Your task to perform on an android device: install app "Venmo" Image 0: 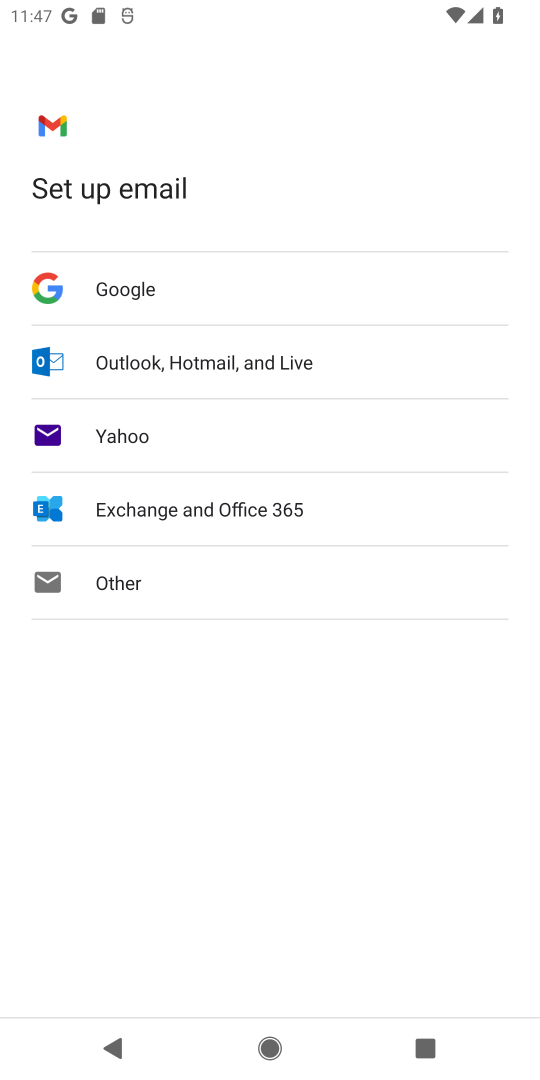
Step 0: press home button
Your task to perform on an android device: install app "Venmo" Image 1: 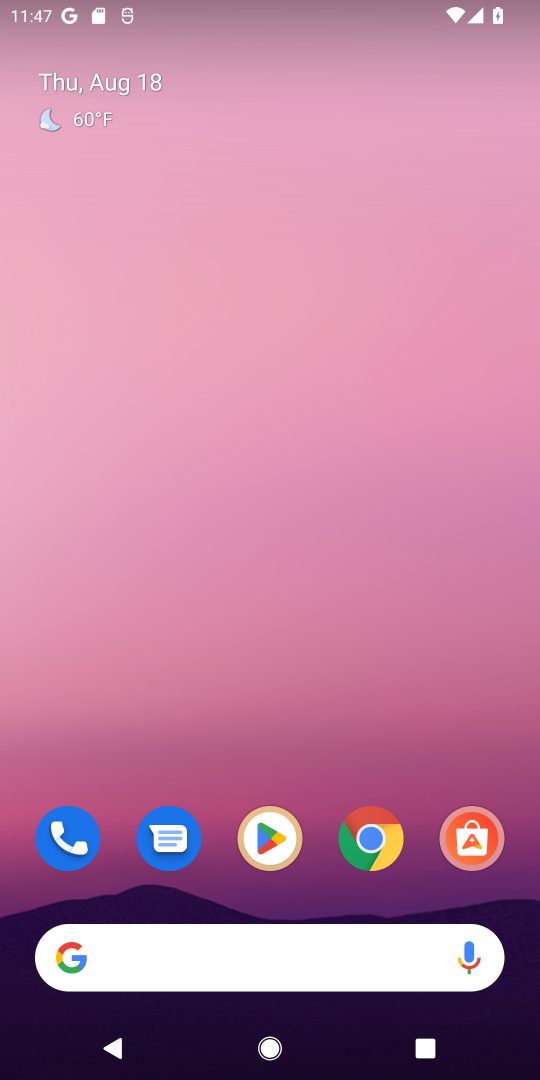
Step 1: click (272, 846)
Your task to perform on an android device: install app "Venmo" Image 2: 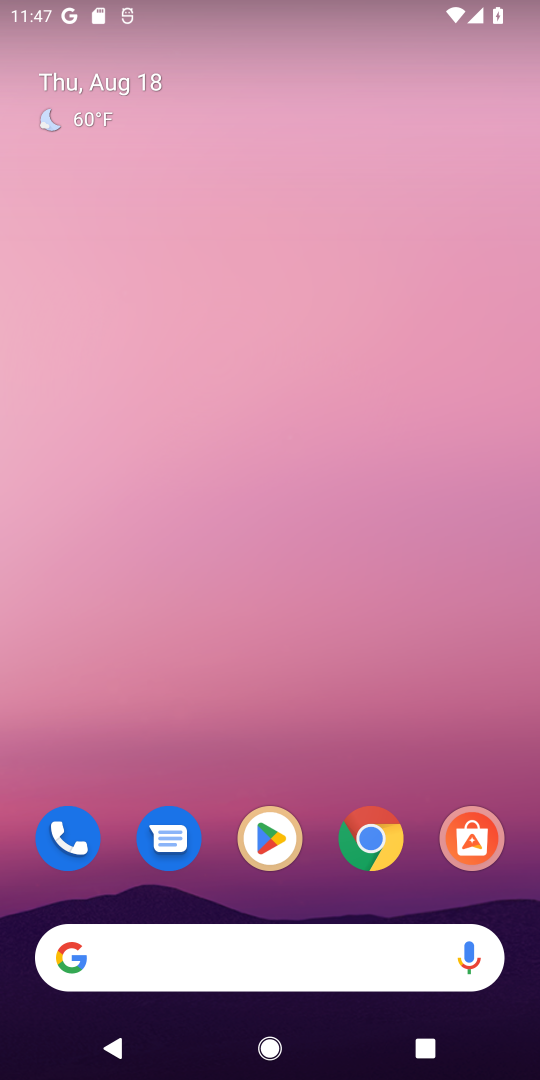
Step 2: click (263, 826)
Your task to perform on an android device: install app "Venmo" Image 3: 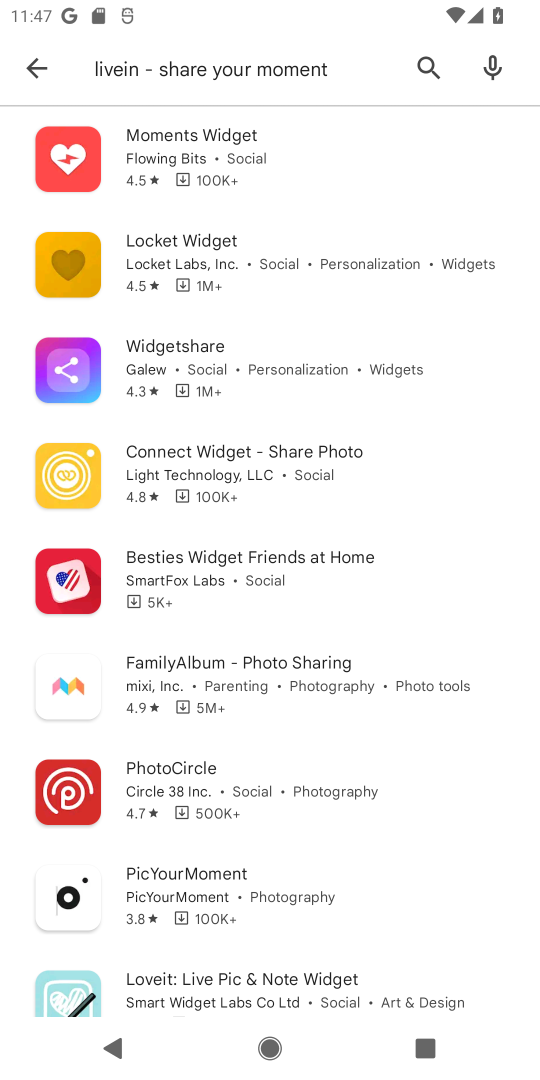
Step 3: click (426, 74)
Your task to perform on an android device: install app "Venmo" Image 4: 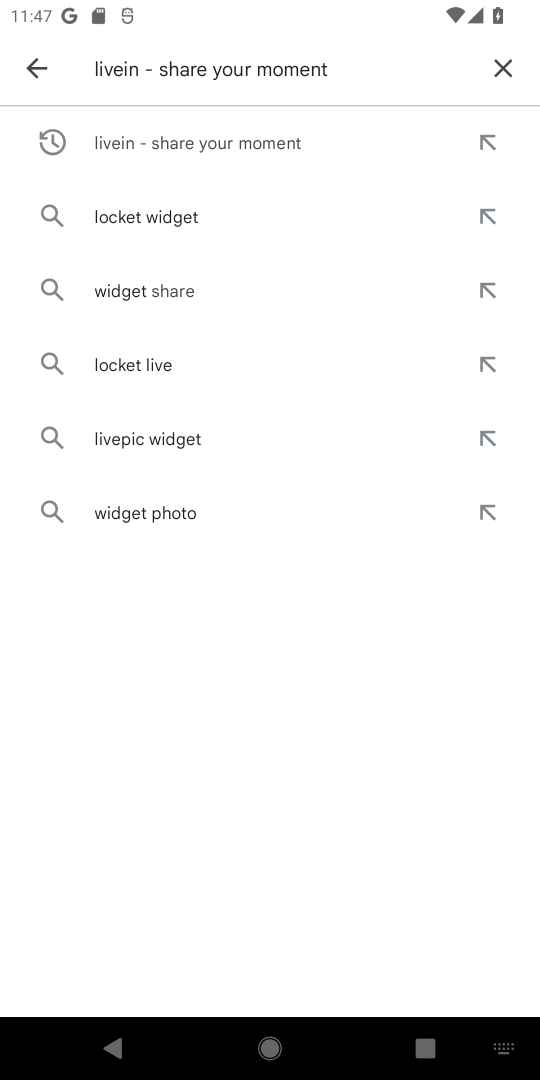
Step 4: click (493, 64)
Your task to perform on an android device: install app "Venmo" Image 5: 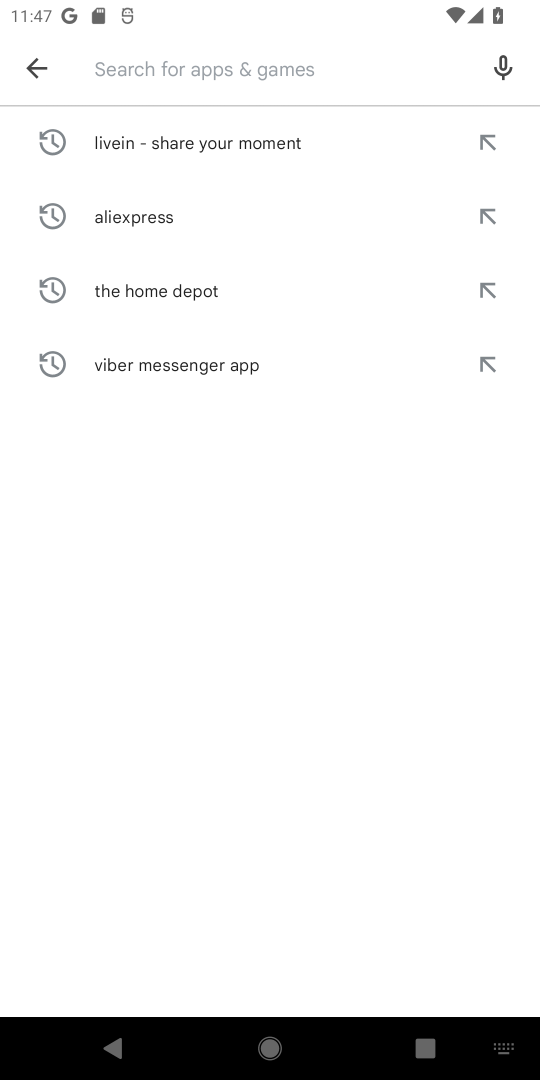
Step 5: type "Venmo"
Your task to perform on an android device: install app "Venmo" Image 6: 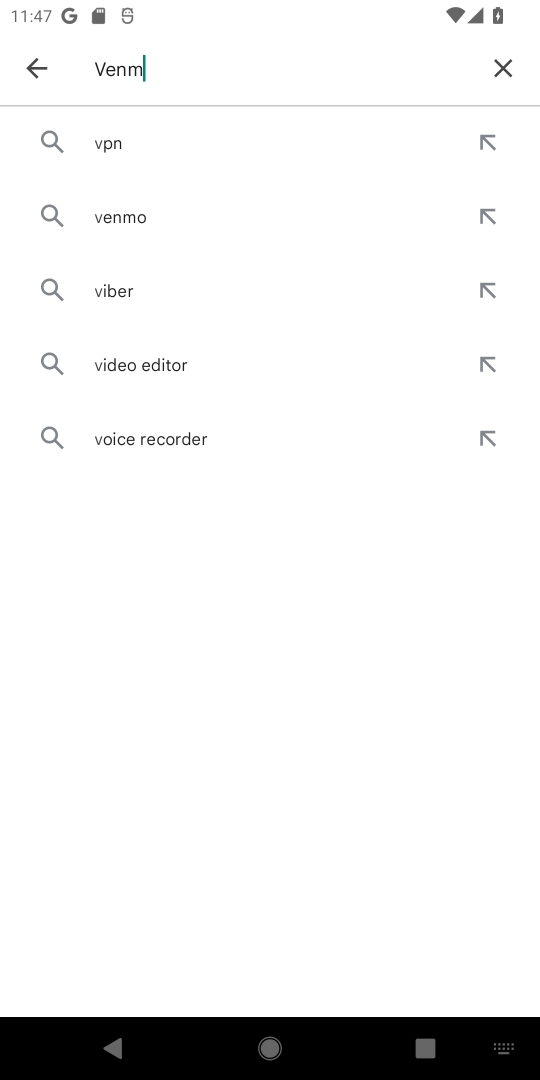
Step 6: type ""
Your task to perform on an android device: install app "Venmo" Image 7: 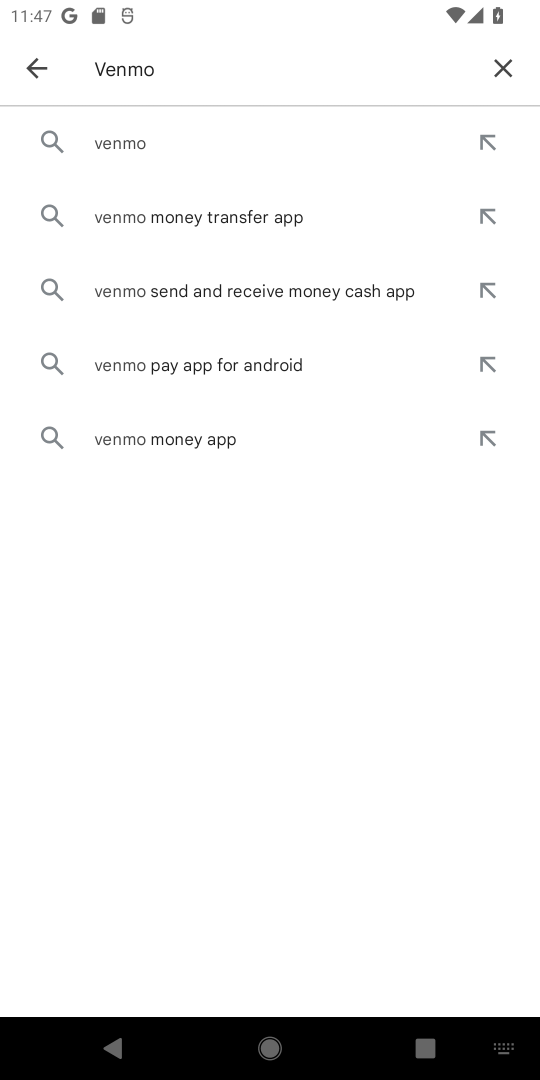
Step 7: click (171, 136)
Your task to perform on an android device: install app "Venmo" Image 8: 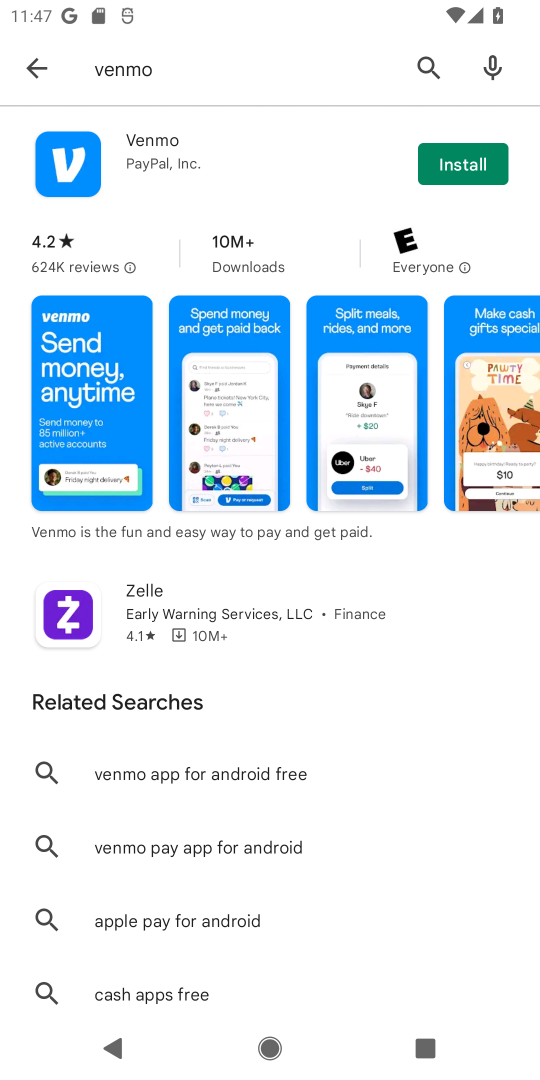
Step 8: click (472, 178)
Your task to perform on an android device: install app "Venmo" Image 9: 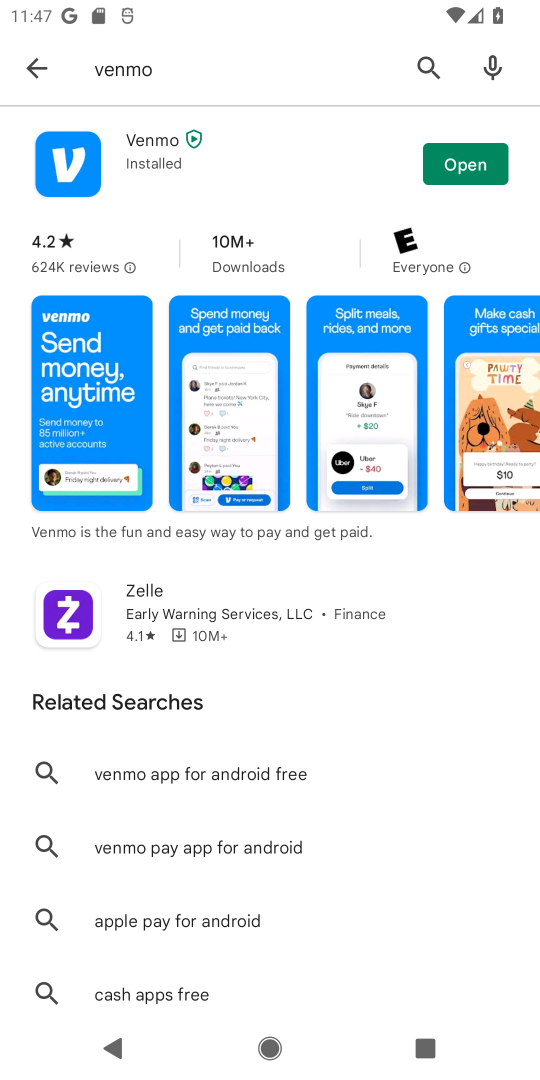
Step 9: task complete